Your task to perform on an android device: turn off airplane mode Image 0: 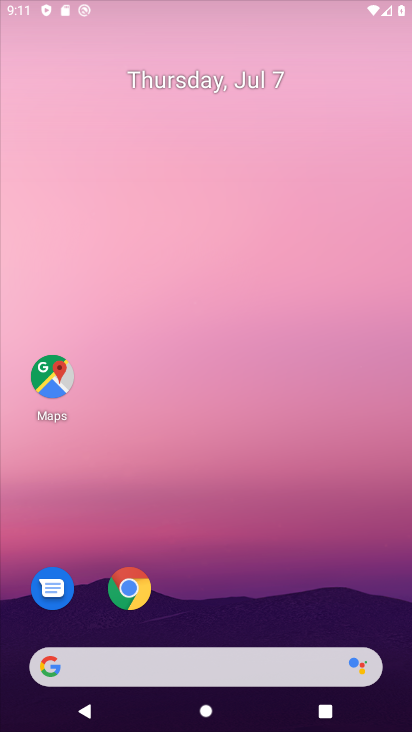
Step 0: drag from (219, 698) to (170, 352)
Your task to perform on an android device: turn off airplane mode Image 1: 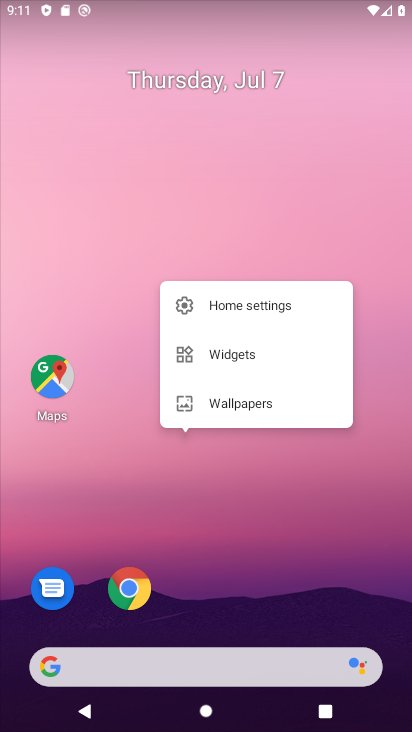
Step 1: drag from (243, 650) to (205, 223)
Your task to perform on an android device: turn off airplane mode Image 2: 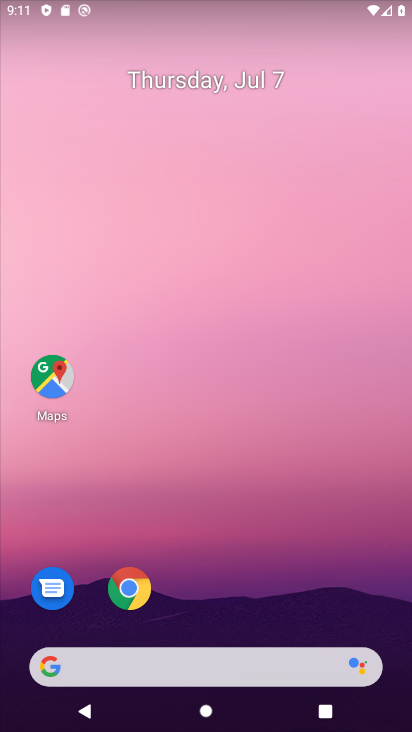
Step 2: drag from (270, 657) to (141, 67)
Your task to perform on an android device: turn off airplane mode Image 3: 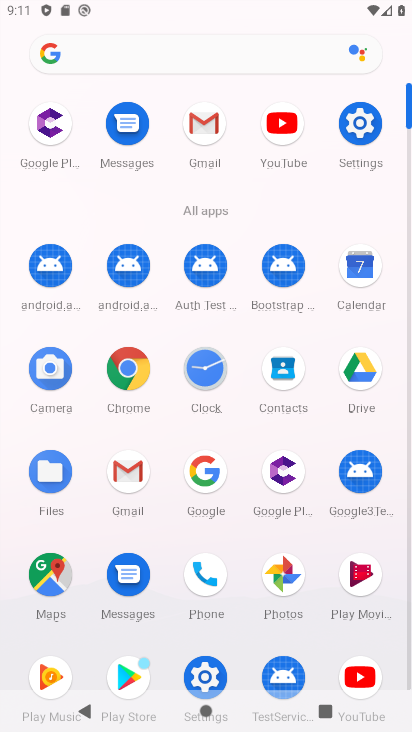
Step 3: click (353, 134)
Your task to perform on an android device: turn off airplane mode Image 4: 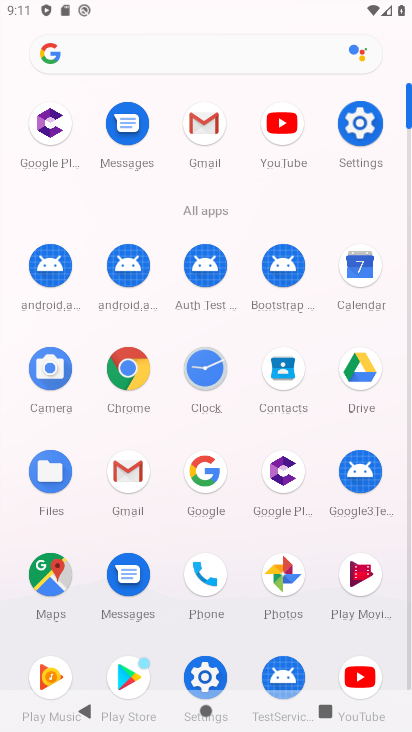
Step 4: click (354, 134)
Your task to perform on an android device: turn off airplane mode Image 5: 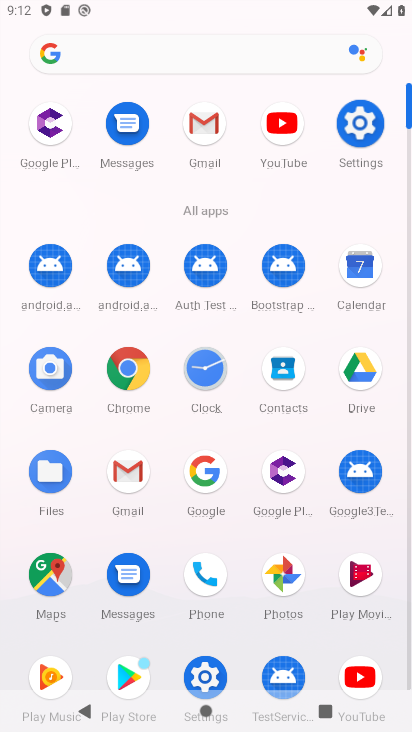
Step 5: click (355, 134)
Your task to perform on an android device: turn off airplane mode Image 6: 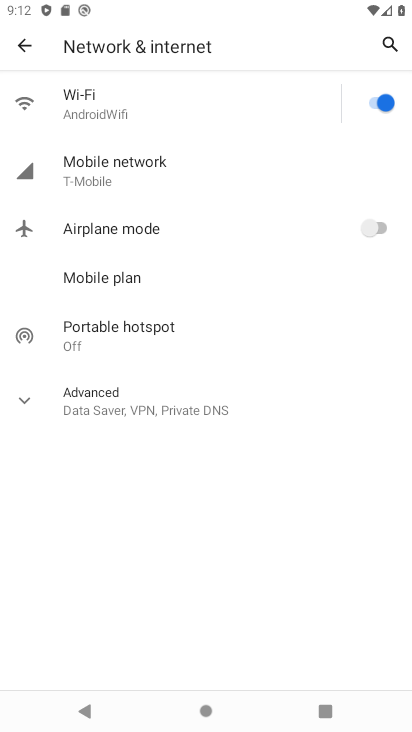
Step 6: click (89, 220)
Your task to perform on an android device: turn off airplane mode Image 7: 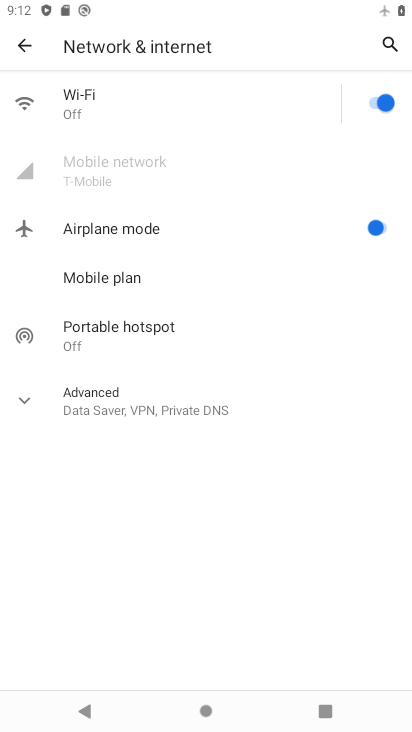
Step 7: click (87, 226)
Your task to perform on an android device: turn off airplane mode Image 8: 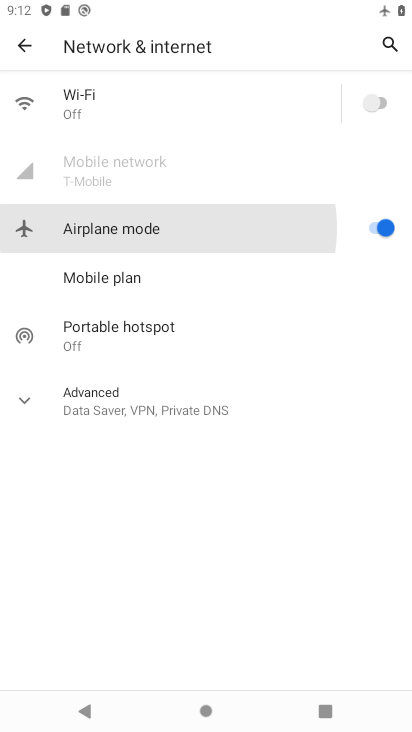
Step 8: click (87, 226)
Your task to perform on an android device: turn off airplane mode Image 9: 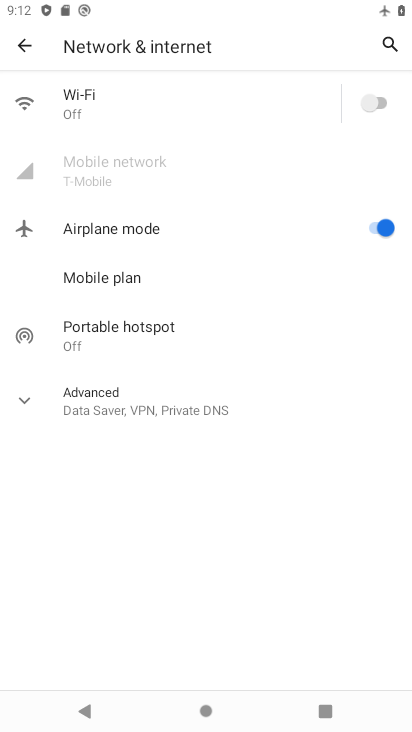
Step 9: click (378, 101)
Your task to perform on an android device: turn off airplane mode Image 10: 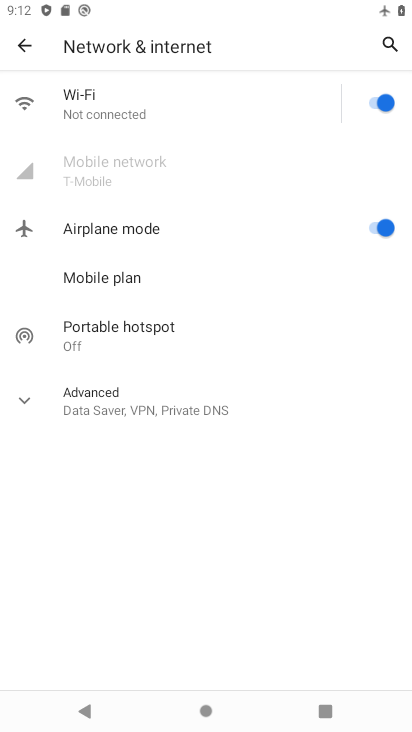
Step 10: click (384, 231)
Your task to perform on an android device: turn off airplane mode Image 11: 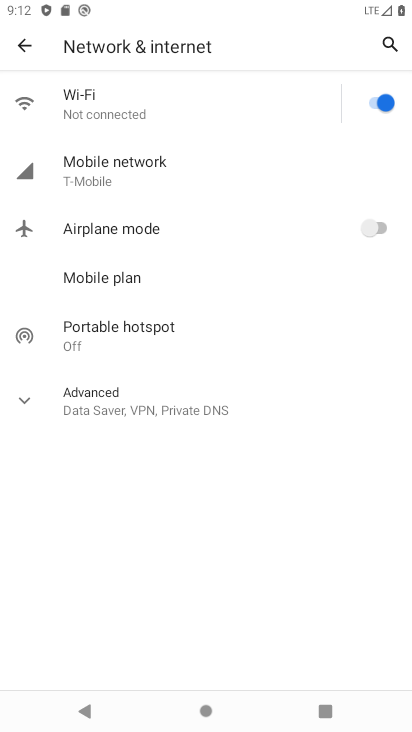
Step 11: task complete